Your task to perform on an android device: What's the weather going to be this weekend? Image 0: 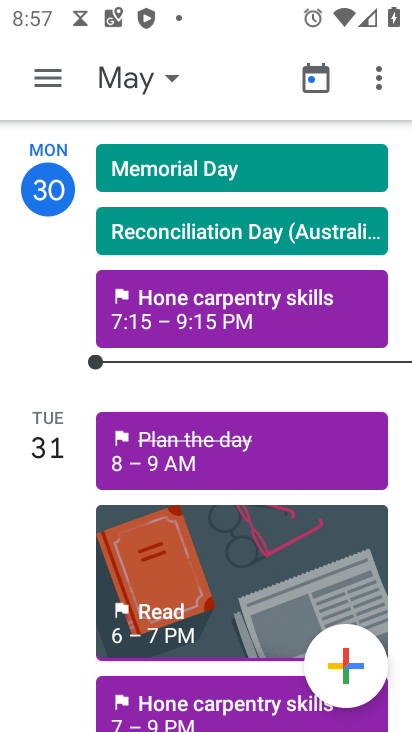
Step 0: press back button
Your task to perform on an android device: What's the weather going to be this weekend? Image 1: 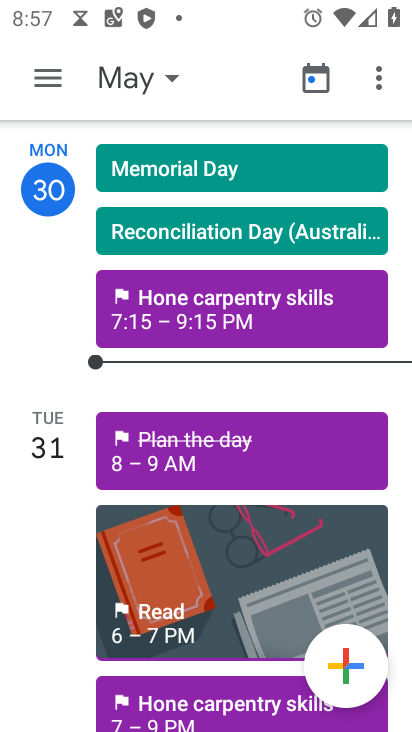
Step 1: press back button
Your task to perform on an android device: What's the weather going to be this weekend? Image 2: 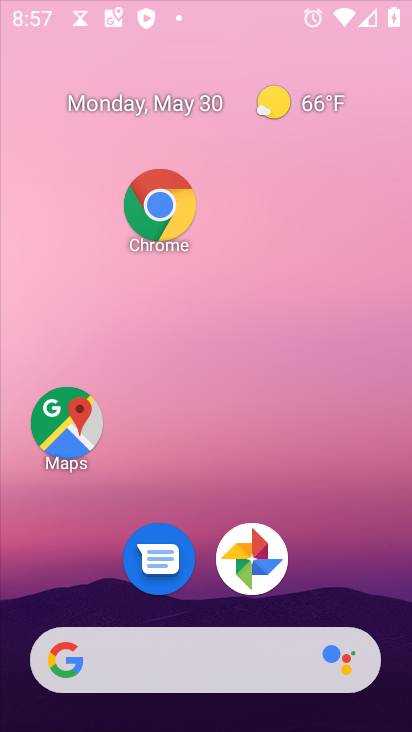
Step 2: press back button
Your task to perform on an android device: What's the weather going to be this weekend? Image 3: 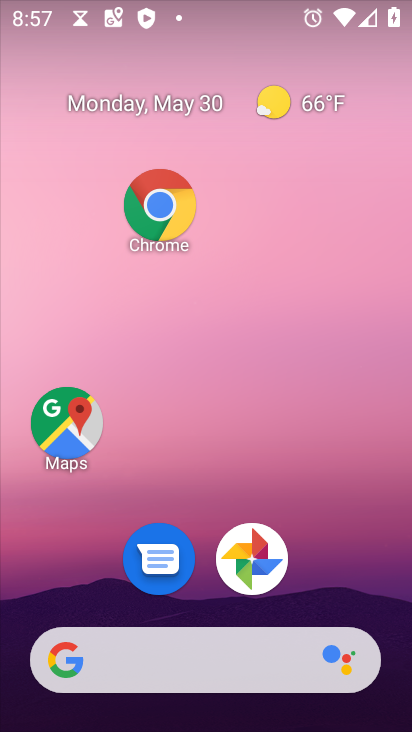
Step 3: drag from (254, 696) to (167, 187)
Your task to perform on an android device: What's the weather going to be this weekend? Image 4: 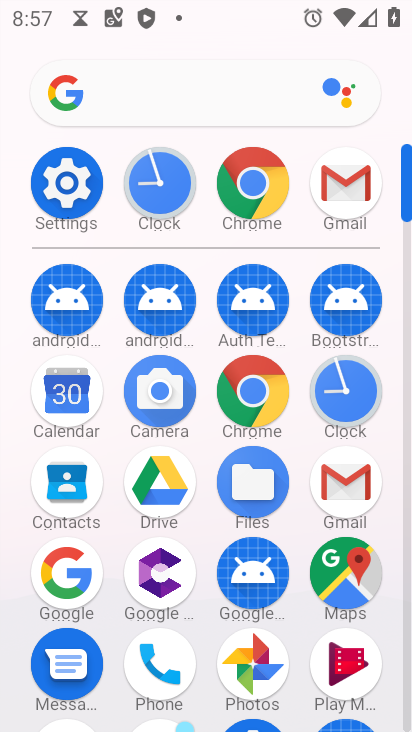
Step 4: press back button
Your task to perform on an android device: What's the weather going to be this weekend? Image 5: 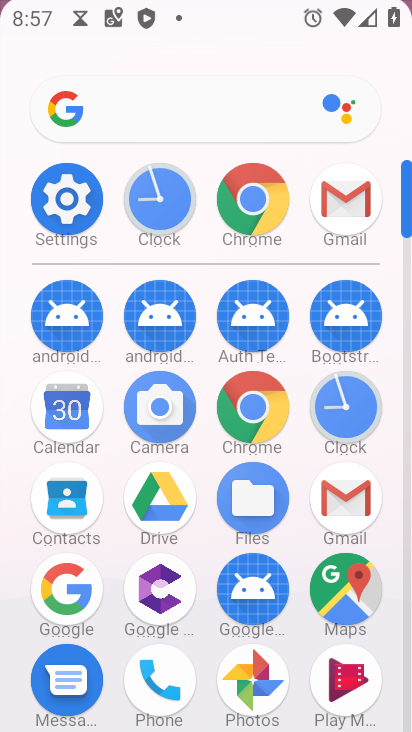
Step 5: press back button
Your task to perform on an android device: What's the weather going to be this weekend? Image 6: 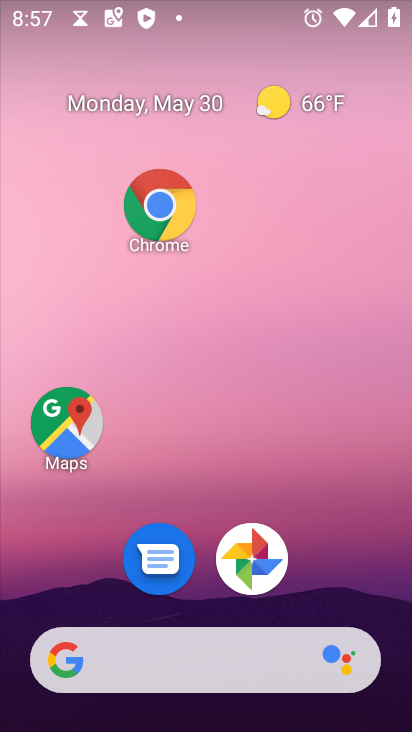
Step 6: press back button
Your task to perform on an android device: What's the weather going to be this weekend? Image 7: 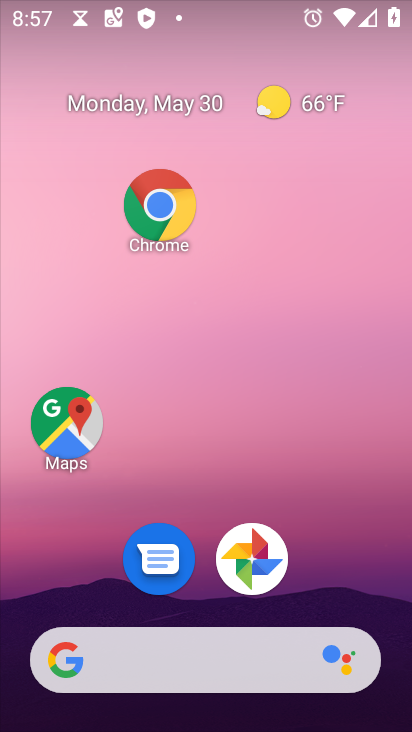
Step 7: press back button
Your task to perform on an android device: What's the weather going to be this weekend? Image 8: 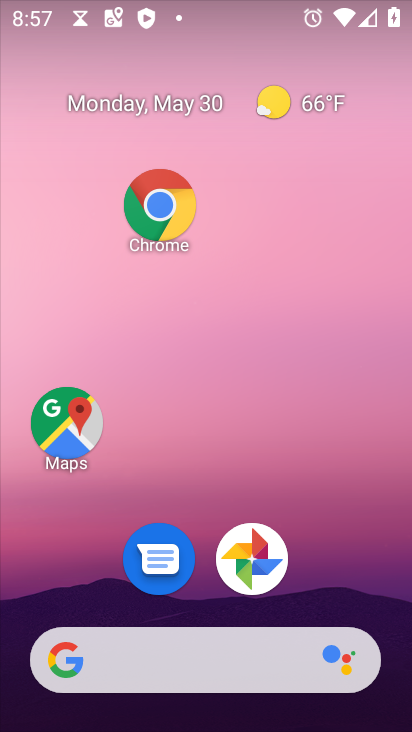
Step 8: drag from (235, 609) to (224, 248)
Your task to perform on an android device: What's the weather going to be this weekend? Image 9: 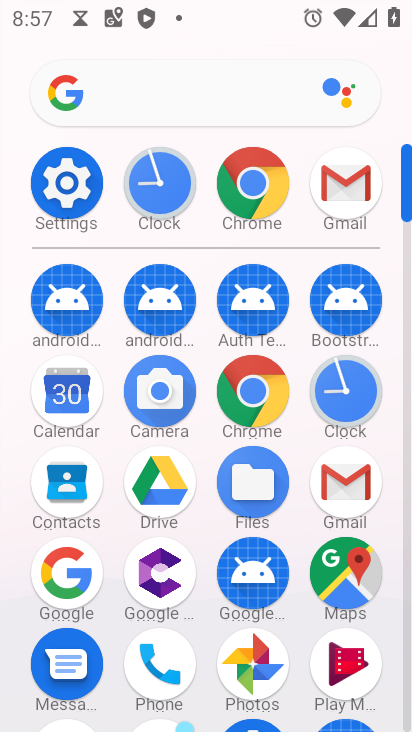
Step 9: press home button
Your task to perform on an android device: What's the weather going to be this weekend? Image 10: 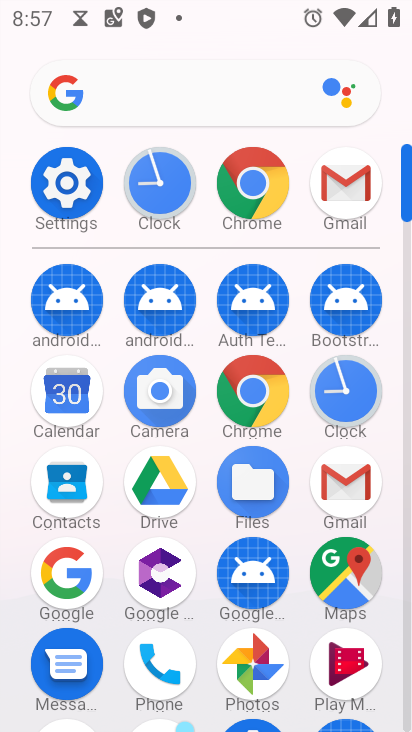
Step 10: press home button
Your task to perform on an android device: What's the weather going to be this weekend? Image 11: 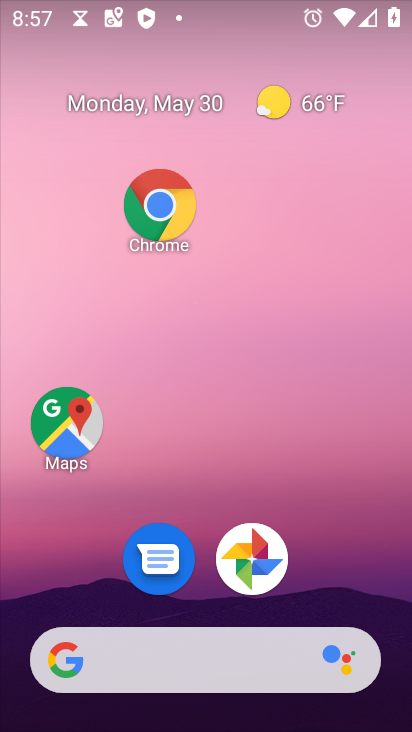
Step 11: press home button
Your task to perform on an android device: What's the weather going to be this weekend? Image 12: 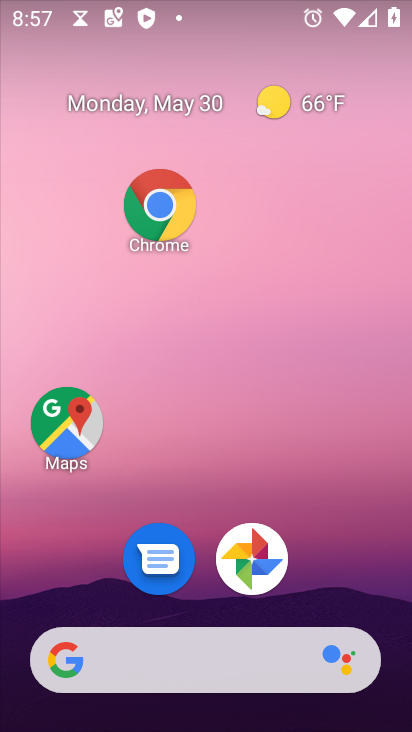
Step 12: drag from (11, 215) to (404, 405)
Your task to perform on an android device: What's the weather going to be this weekend? Image 13: 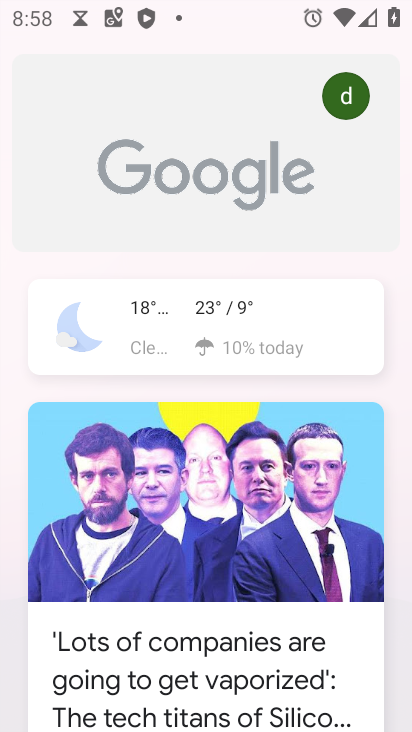
Step 13: click (129, 322)
Your task to perform on an android device: What's the weather going to be this weekend? Image 14: 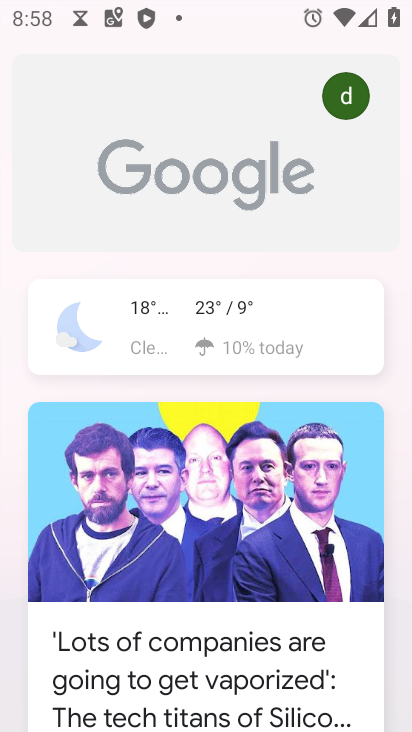
Step 14: click (145, 327)
Your task to perform on an android device: What's the weather going to be this weekend? Image 15: 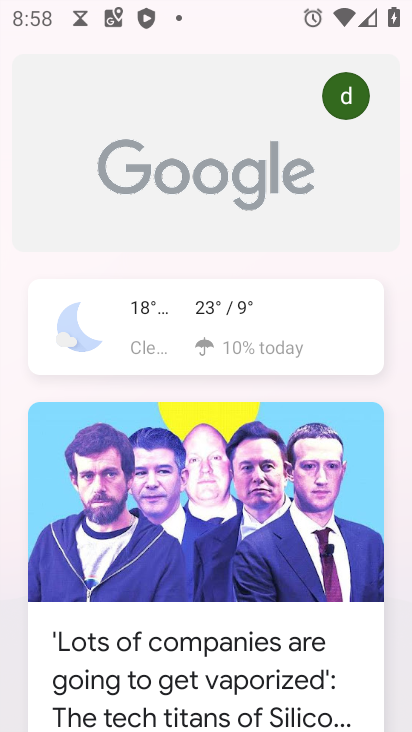
Step 15: click (153, 330)
Your task to perform on an android device: What's the weather going to be this weekend? Image 16: 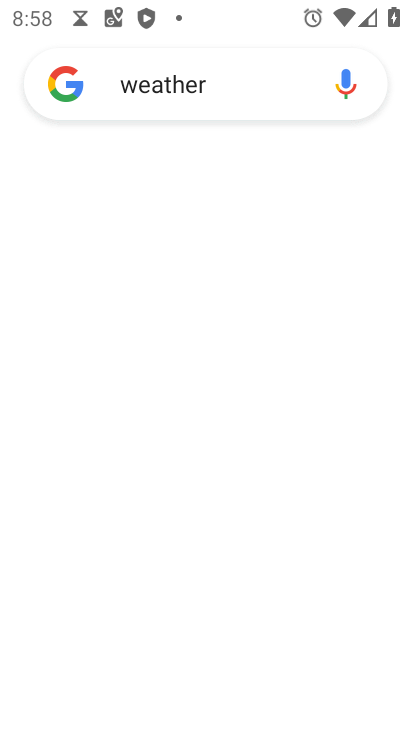
Step 16: click (154, 331)
Your task to perform on an android device: What's the weather going to be this weekend? Image 17: 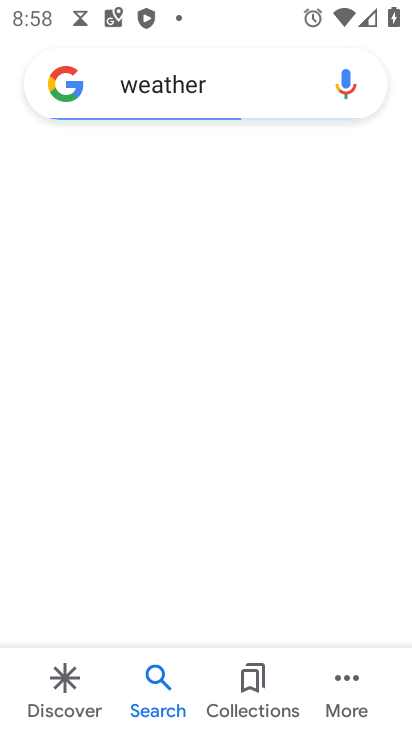
Step 17: click (154, 331)
Your task to perform on an android device: What's the weather going to be this weekend? Image 18: 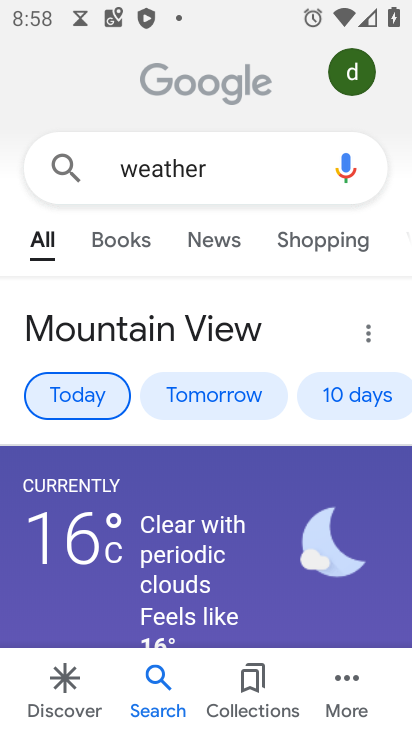
Step 18: task complete